Your task to perform on an android device: What's on my calendar today? Image 0: 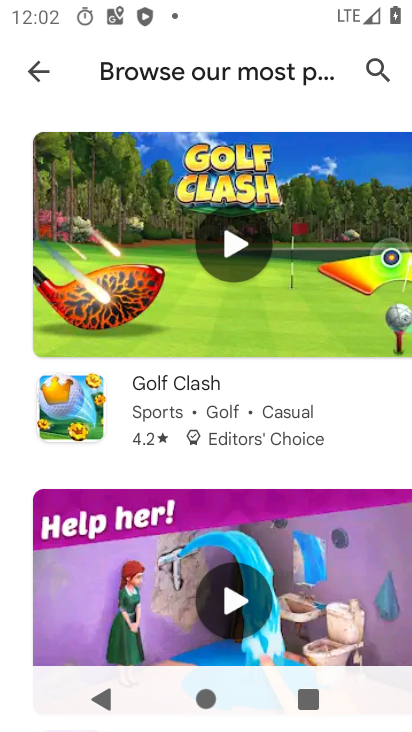
Step 0: press home button
Your task to perform on an android device: What's on my calendar today? Image 1: 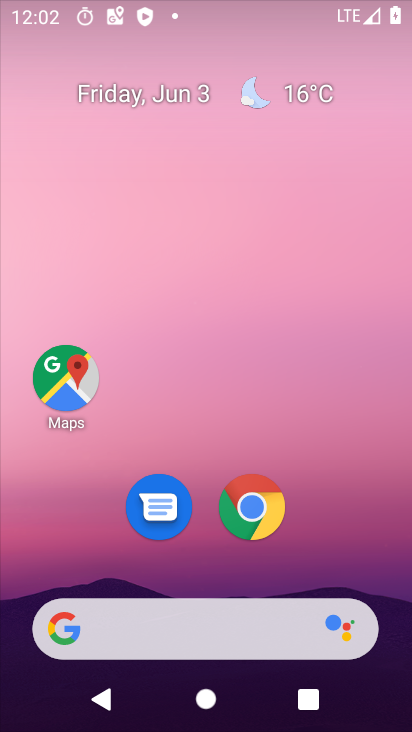
Step 1: drag from (407, 667) to (387, 365)
Your task to perform on an android device: What's on my calendar today? Image 2: 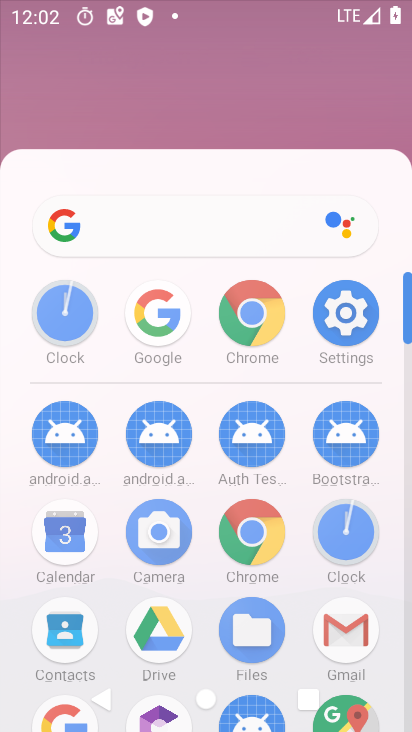
Step 2: click (310, 84)
Your task to perform on an android device: What's on my calendar today? Image 3: 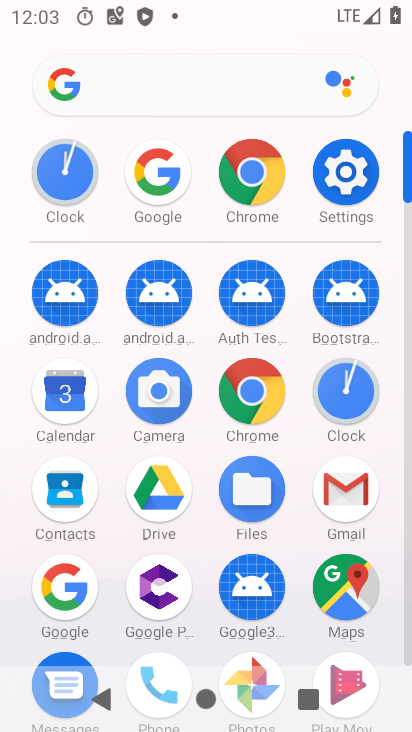
Step 3: click (70, 409)
Your task to perform on an android device: What's on my calendar today? Image 4: 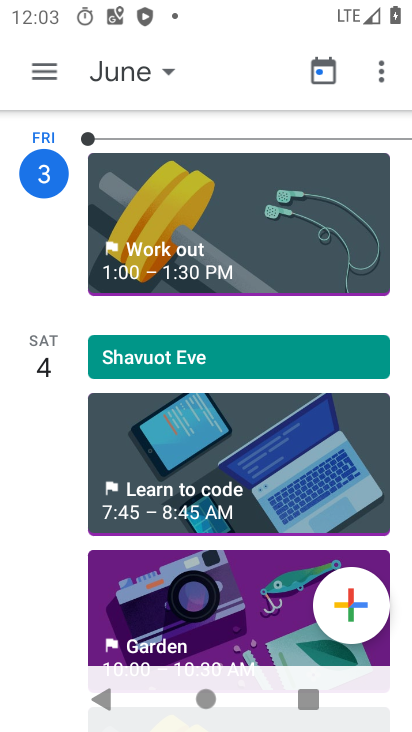
Step 4: click (124, 69)
Your task to perform on an android device: What's on my calendar today? Image 5: 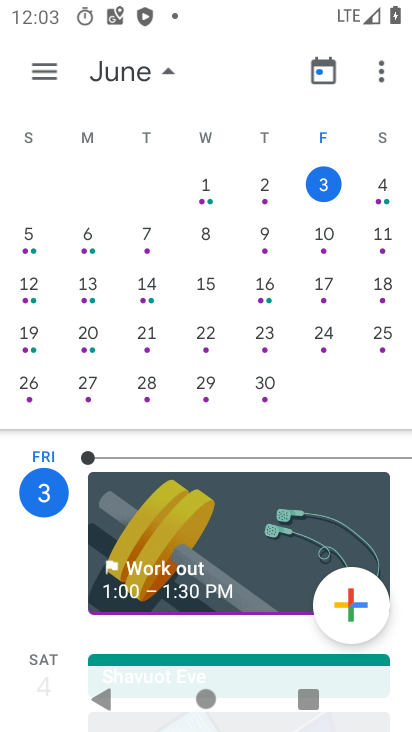
Step 5: click (332, 185)
Your task to perform on an android device: What's on my calendar today? Image 6: 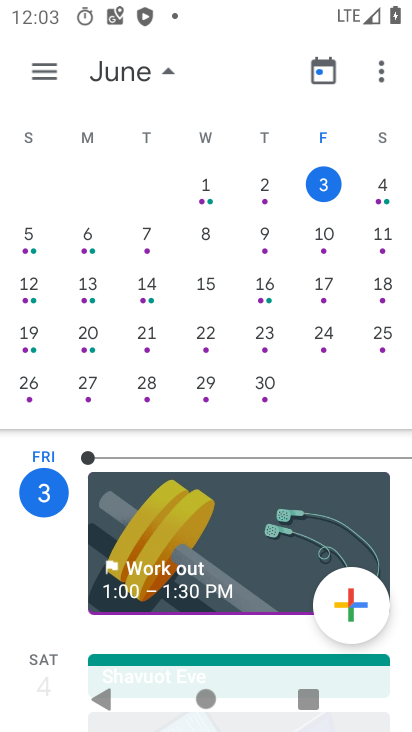
Step 6: drag from (210, 521) to (219, 454)
Your task to perform on an android device: What's on my calendar today? Image 7: 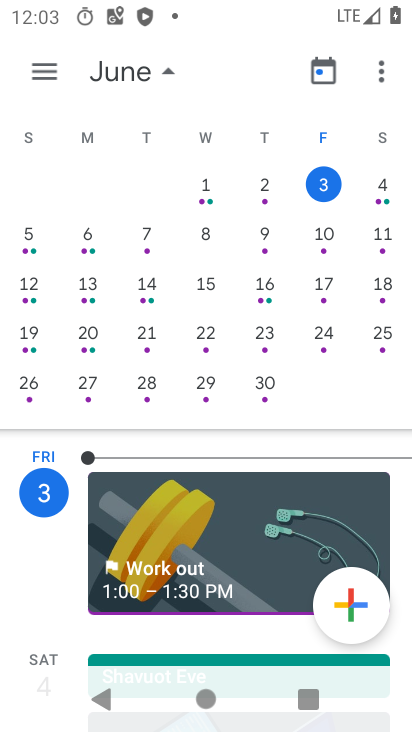
Step 7: drag from (227, 392) to (236, 290)
Your task to perform on an android device: What's on my calendar today? Image 8: 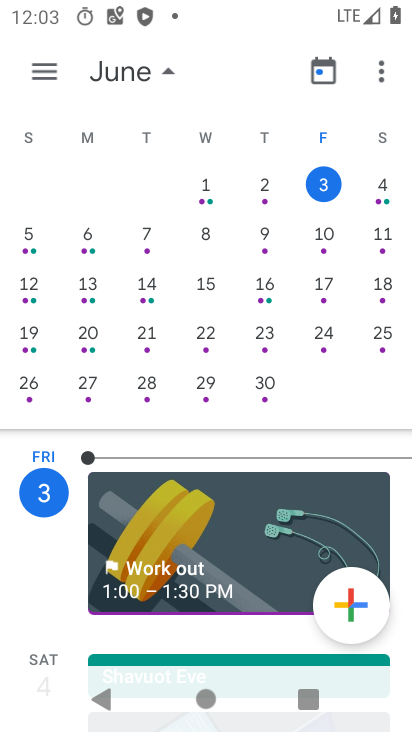
Step 8: click (244, 549)
Your task to perform on an android device: What's on my calendar today? Image 9: 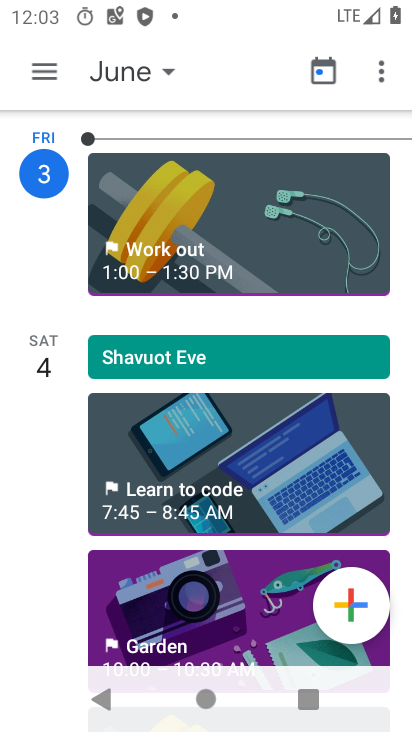
Step 9: click (267, 255)
Your task to perform on an android device: What's on my calendar today? Image 10: 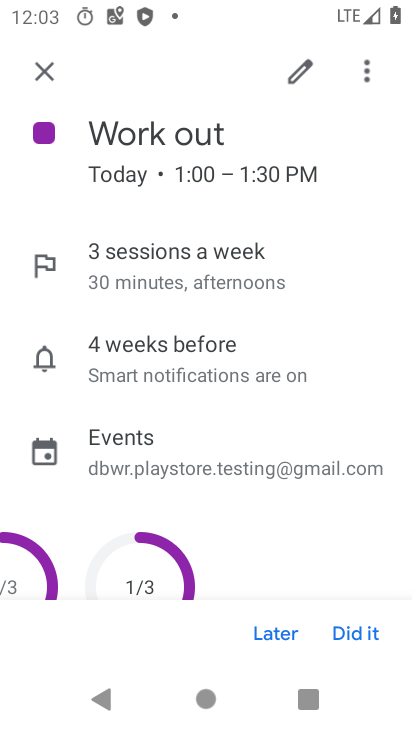
Step 10: task complete